Your task to perform on an android device: turn on airplane mode Image 0: 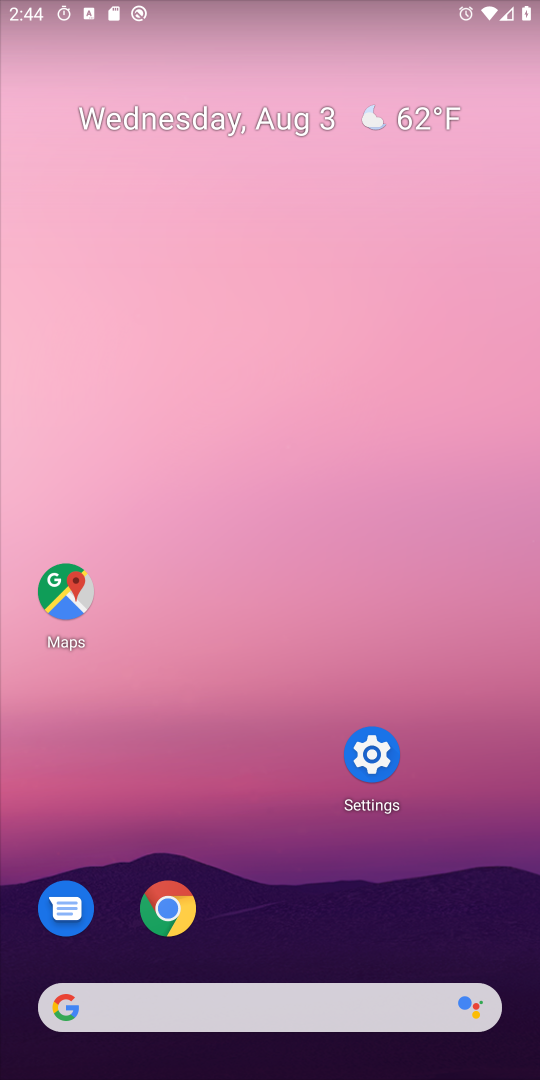
Step 0: drag from (309, 437) to (343, 257)
Your task to perform on an android device: turn on airplane mode Image 1: 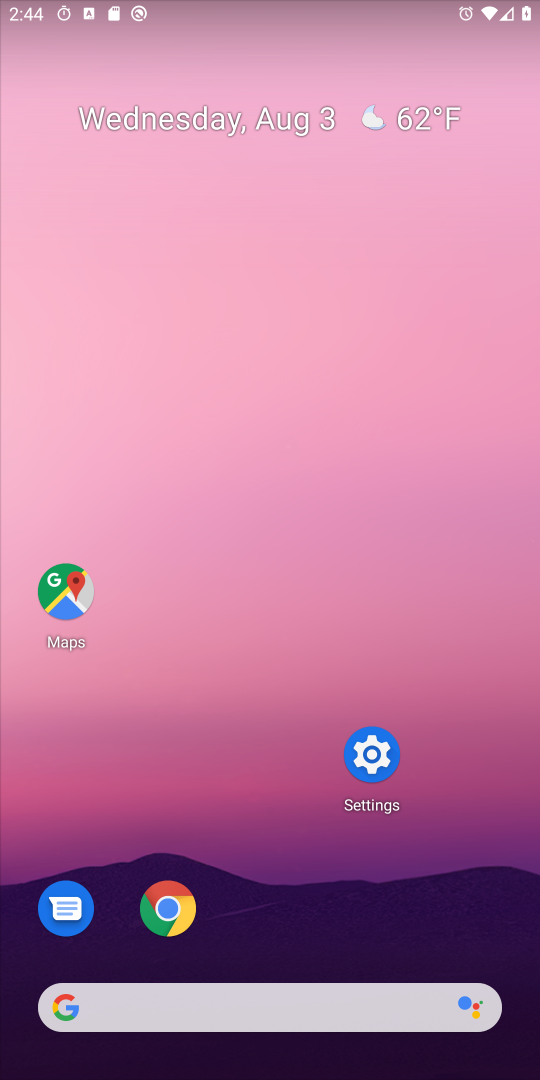
Step 1: drag from (321, 908) to (432, 70)
Your task to perform on an android device: turn on airplane mode Image 2: 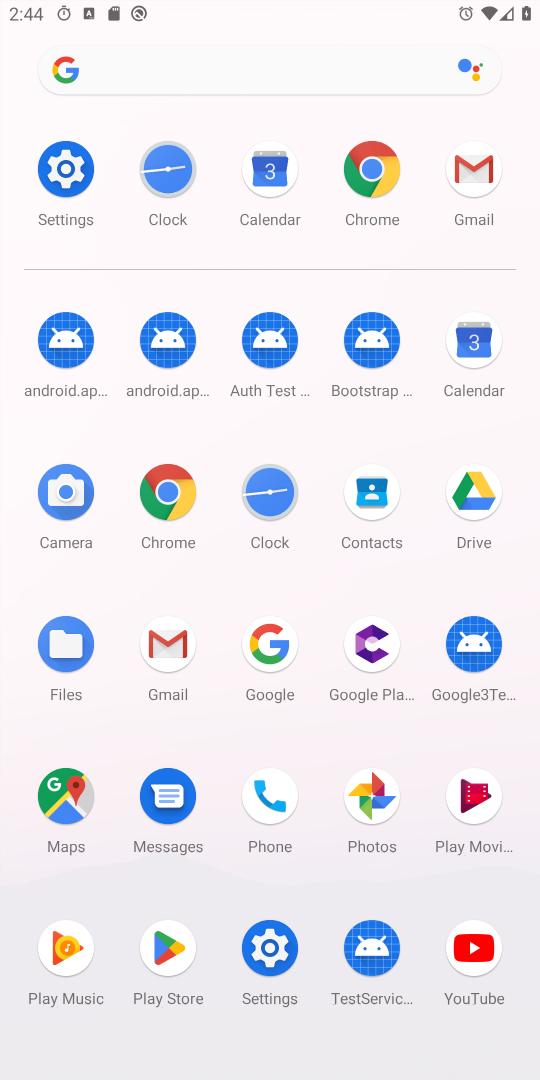
Step 2: click (286, 960)
Your task to perform on an android device: turn on airplane mode Image 3: 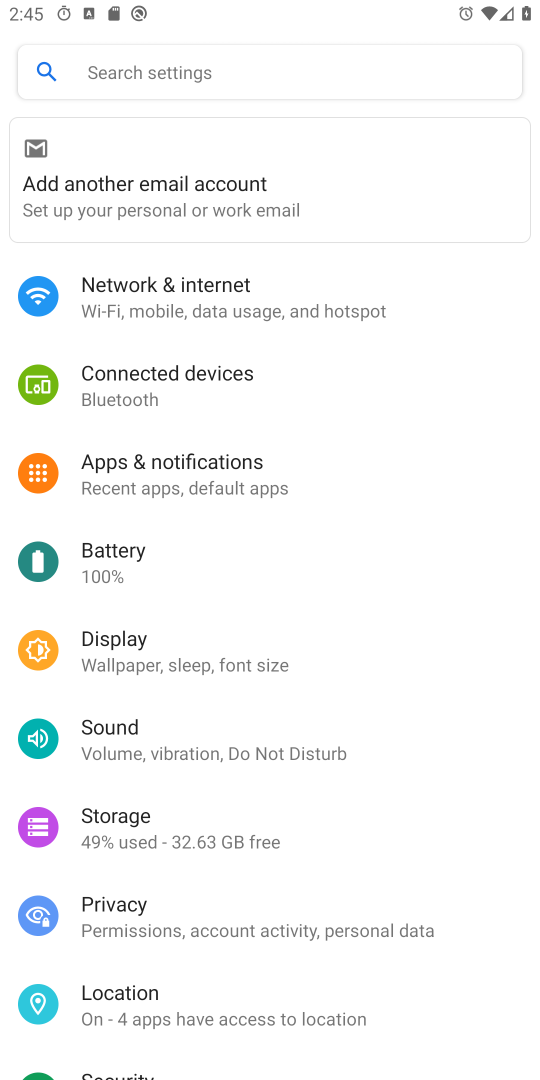
Step 3: click (309, 307)
Your task to perform on an android device: turn on airplane mode Image 4: 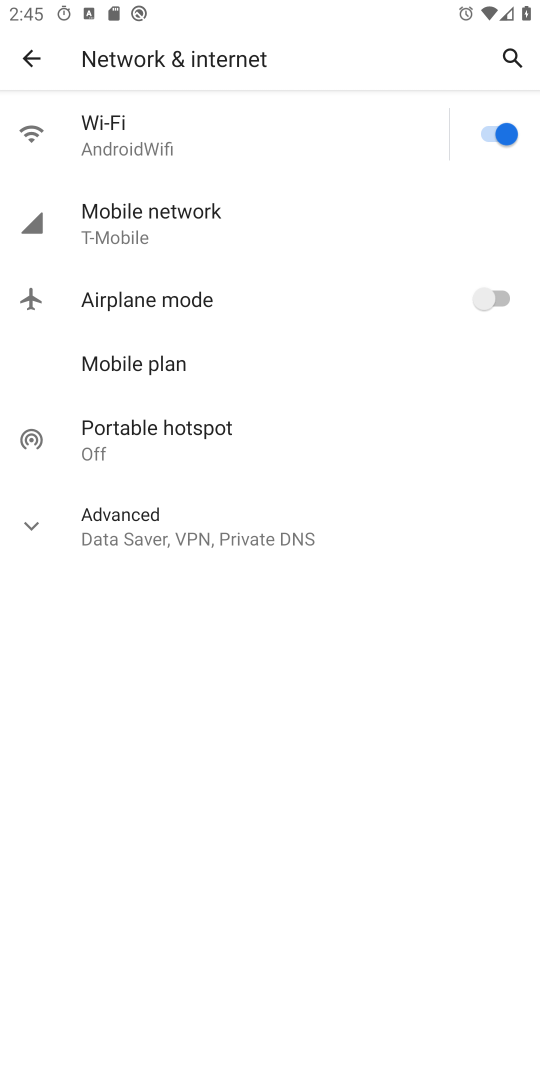
Step 4: click (486, 295)
Your task to perform on an android device: turn on airplane mode Image 5: 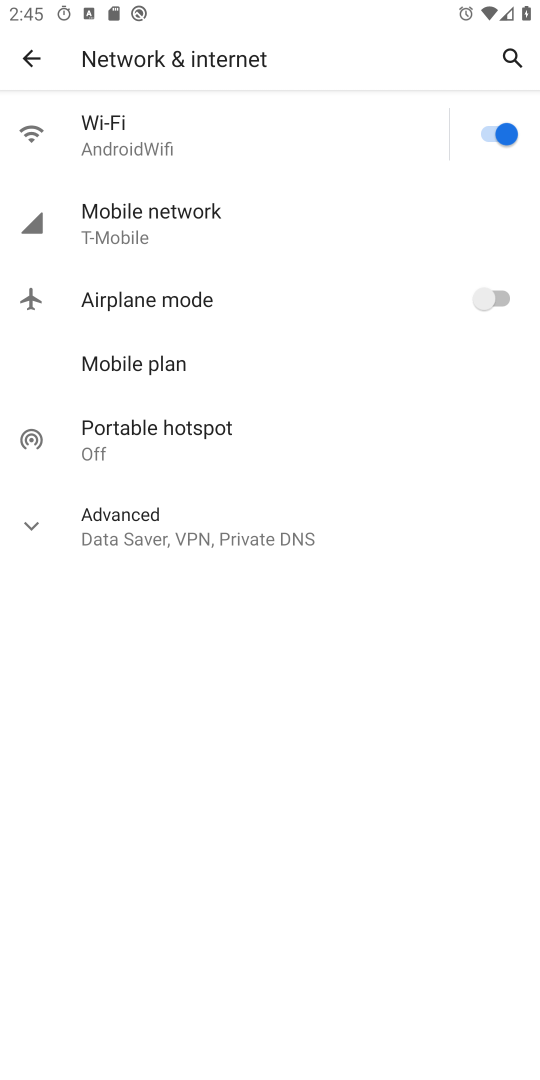
Step 5: task complete